Your task to perform on an android device: Look up the best rated gaming chair on Target. Image 0: 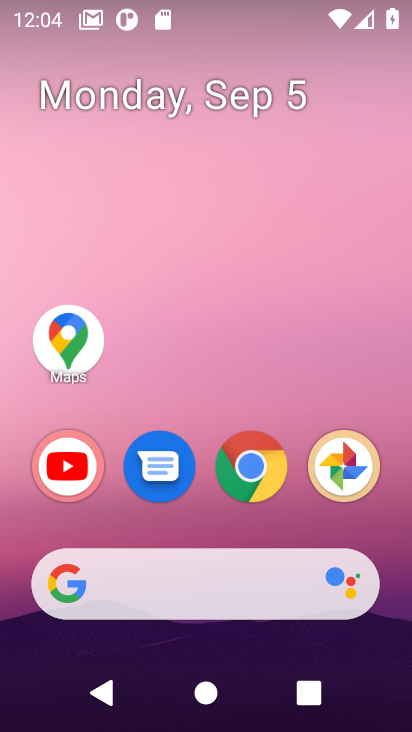
Step 0: drag from (267, 513) to (331, 46)
Your task to perform on an android device: Look up the best rated gaming chair on Target. Image 1: 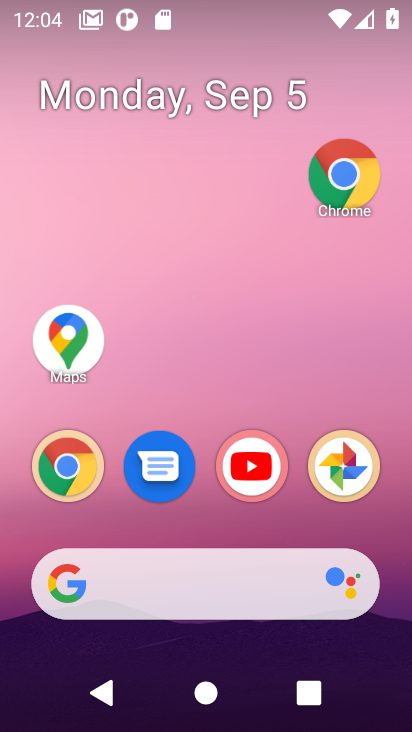
Step 1: drag from (294, 428) to (240, 62)
Your task to perform on an android device: Look up the best rated gaming chair on Target. Image 2: 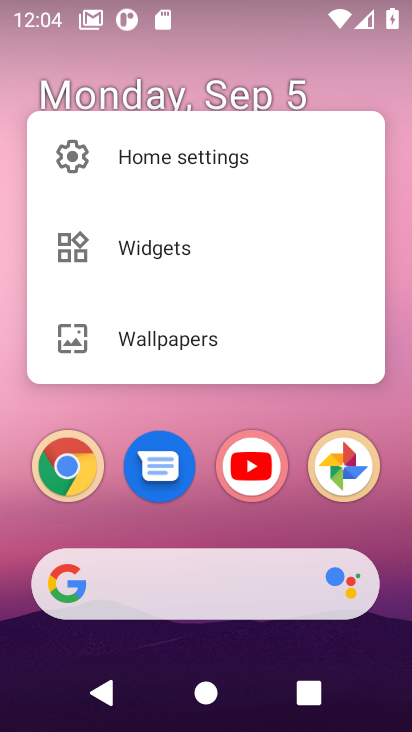
Step 2: click (199, 412)
Your task to perform on an android device: Look up the best rated gaming chair on Target. Image 3: 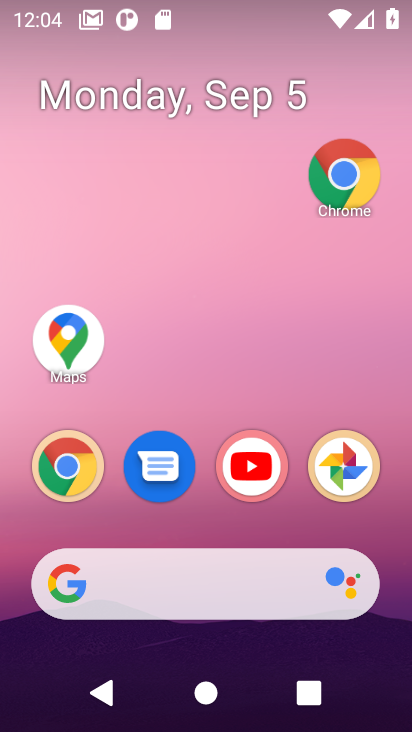
Step 3: drag from (201, 518) to (180, 67)
Your task to perform on an android device: Look up the best rated gaming chair on Target. Image 4: 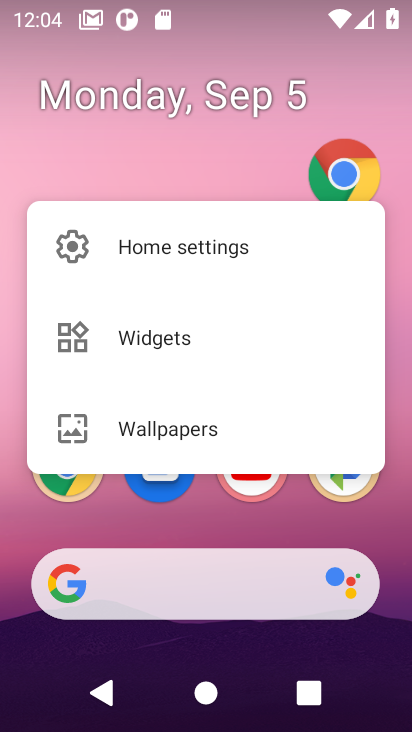
Step 4: click (167, 126)
Your task to perform on an android device: Look up the best rated gaming chair on Target. Image 5: 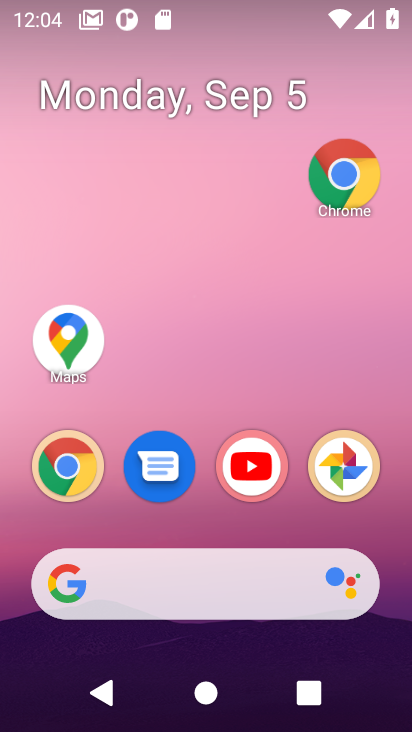
Step 5: click (69, 449)
Your task to perform on an android device: Look up the best rated gaming chair on Target. Image 6: 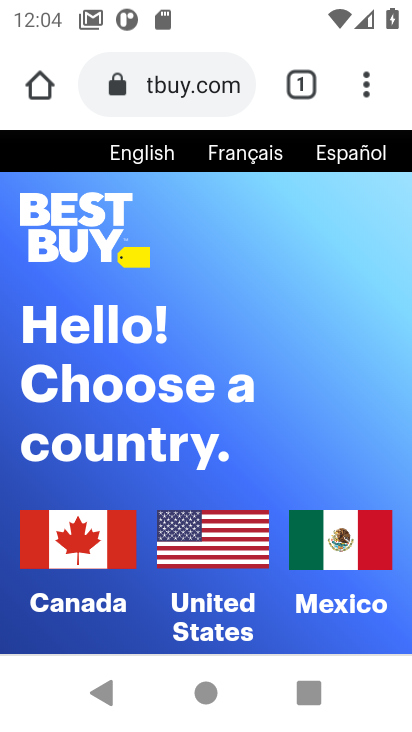
Step 6: click (151, 81)
Your task to perform on an android device: Look up the best rated gaming chair on Target. Image 7: 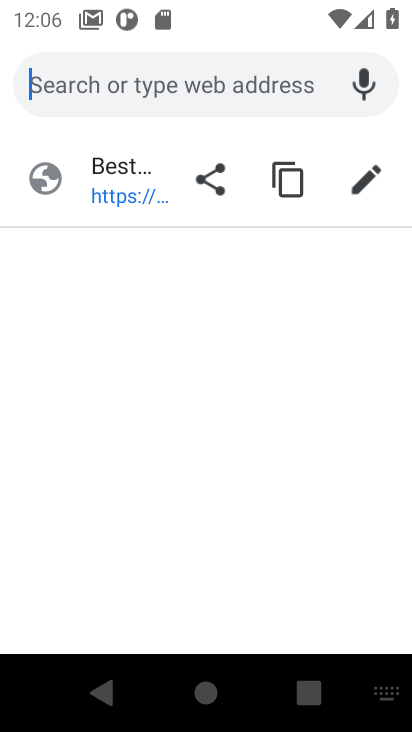
Step 7: type "Target"
Your task to perform on an android device: Look up the best rated gaming chair on Target. Image 8: 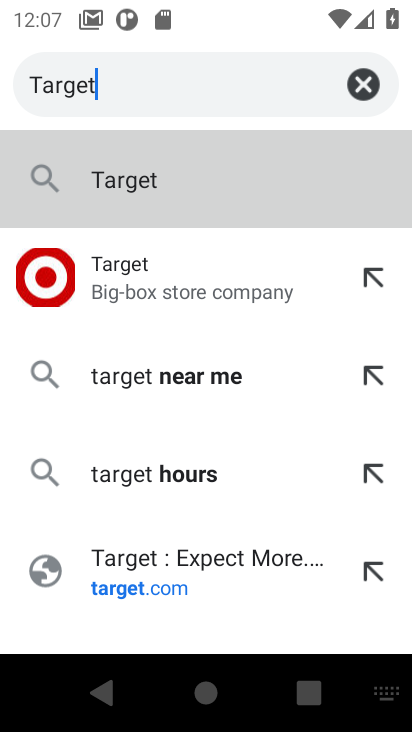
Step 8: click (129, 179)
Your task to perform on an android device: Look up the best rated gaming chair on Target. Image 9: 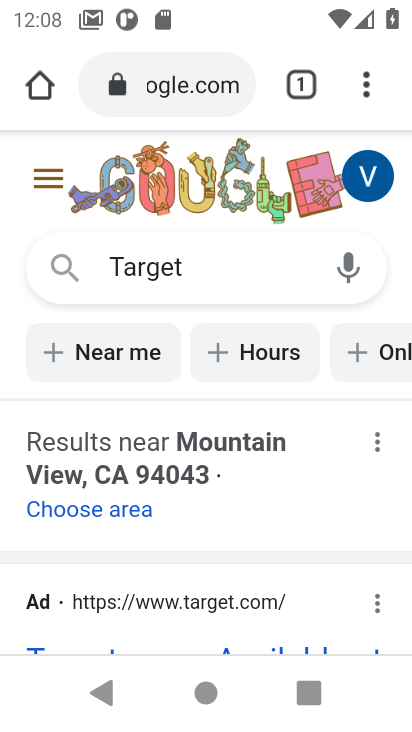
Step 9: drag from (281, 529) to (280, 166)
Your task to perform on an android device: Look up the best rated gaming chair on Target. Image 10: 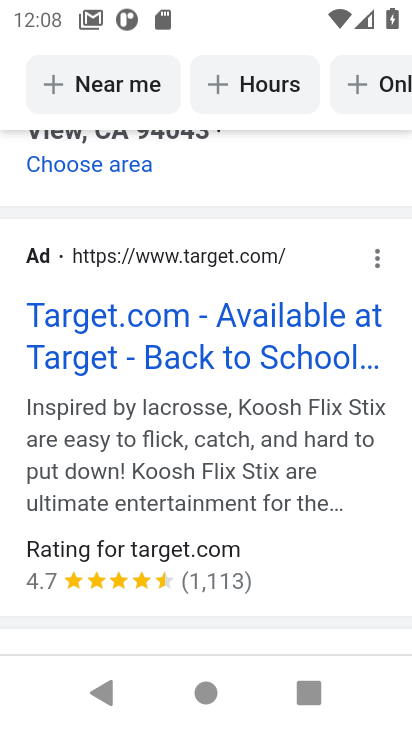
Step 10: click (229, 317)
Your task to perform on an android device: Look up the best rated gaming chair on Target. Image 11: 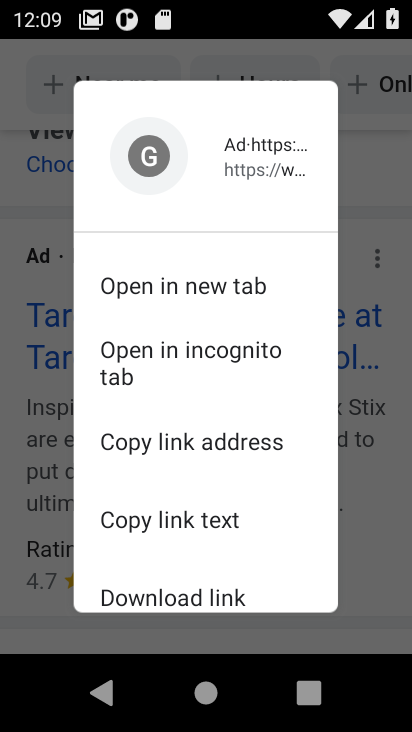
Step 11: click (381, 490)
Your task to perform on an android device: Look up the best rated gaming chair on Target. Image 12: 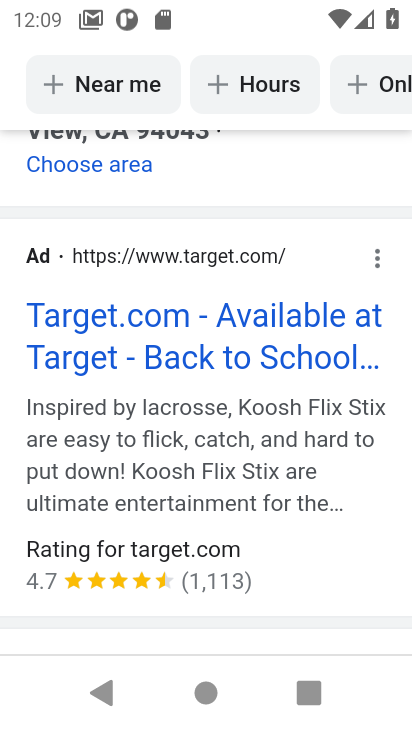
Step 12: click (214, 325)
Your task to perform on an android device: Look up the best rated gaming chair on Target. Image 13: 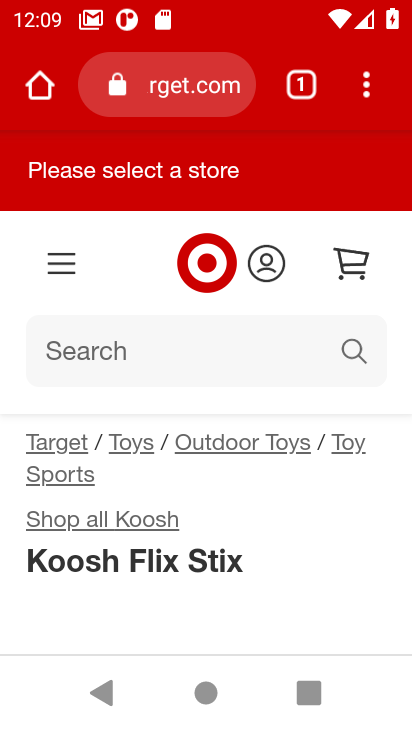
Step 13: click (341, 340)
Your task to perform on an android device: Look up the best rated gaming chair on Target. Image 14: 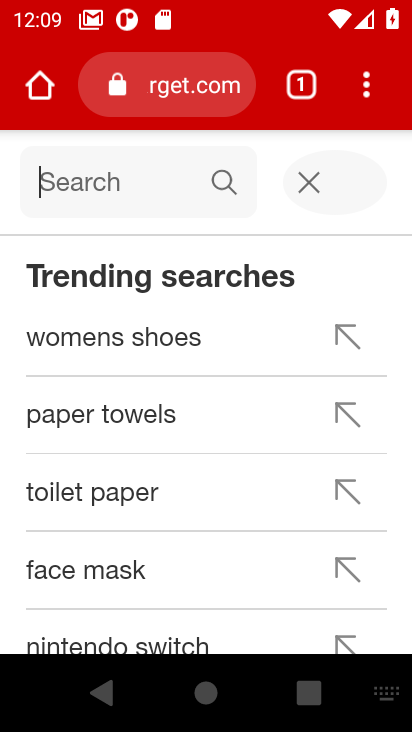
Step 14: click (181, 175)
Your task to perform on an android device: Look up the best rated gaming chair on Target. Image 15: 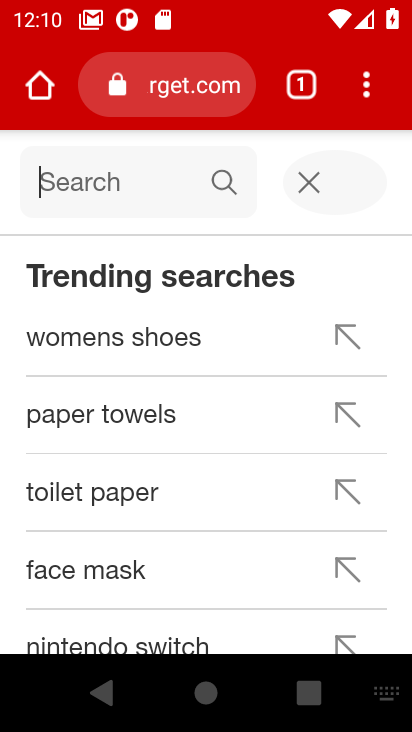
Step 15: type "best rated gaming"
Your task to perform on an android device: Look up the best rated gaming chair on Target. Image 16: 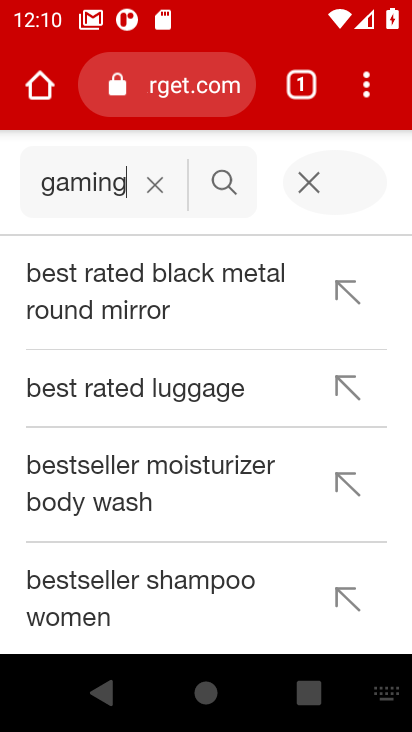
Step 16: click (81, 277)
Your task to perform on an android device: Look up the best rated gaming chair on Target. Image 17: 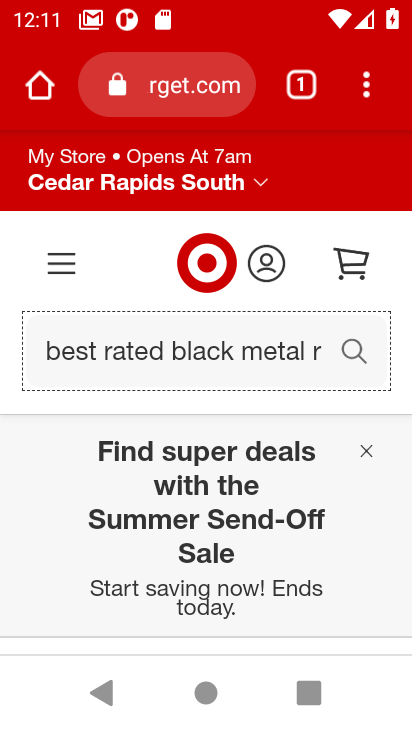
Step 17: task complete